Your task to perform on an android device: Is it going to rain today? Image 0: 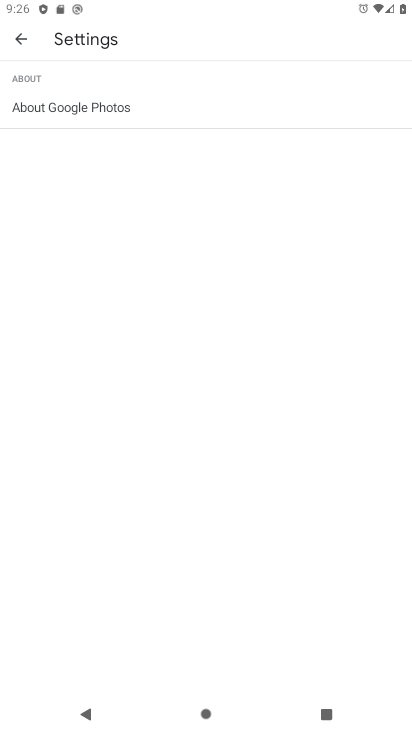
Step 0: press home button
Your task to perform on an android device: Is it going to rain today? Image 1: 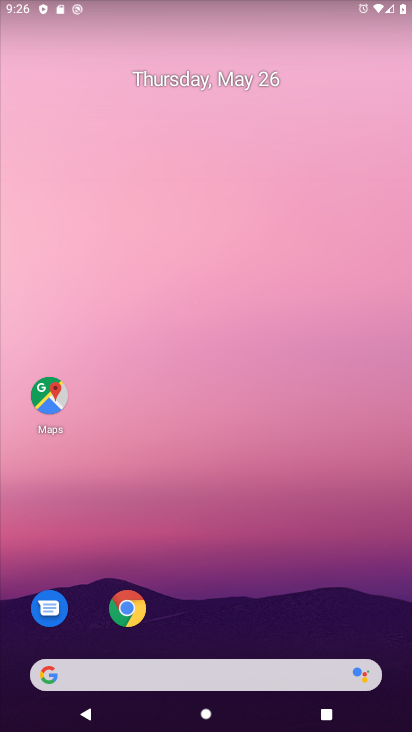
Step 1: drag from (276, 569) to (290, 152)
Your task to perform on an android device: Is it going to rain today? Image 2: 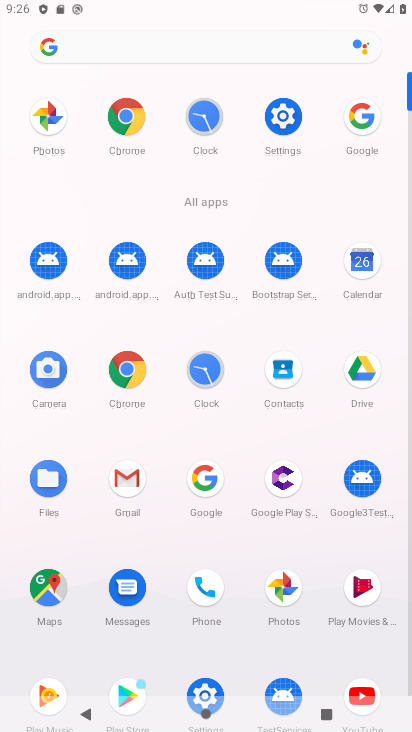
Step 2: click (207, 485)
Your task to perform on an android device: Is it going to rain today? Image 3: 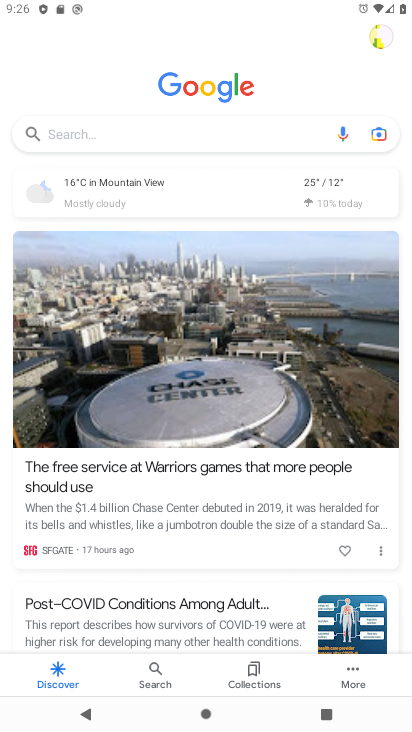
Step 3: click (332, 181)
Your task to perform on an android device: Is it going to rain today? Image 4: 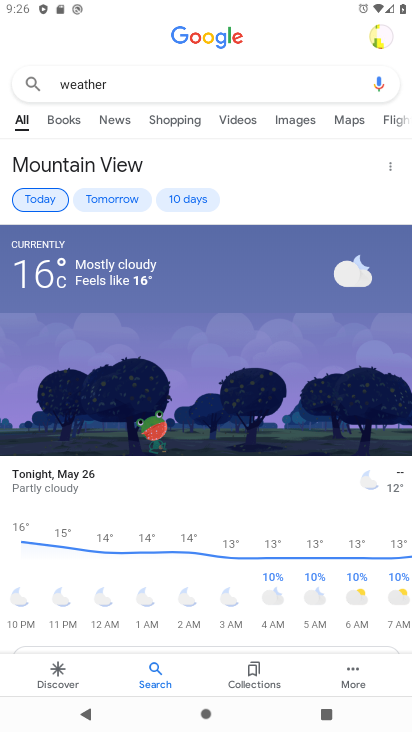
Step 4: task complete